Your task to perform on an android device: Search for "razer blade" on bestbuy, select the first entry, add it to the cart, then select checkout. Image 0: 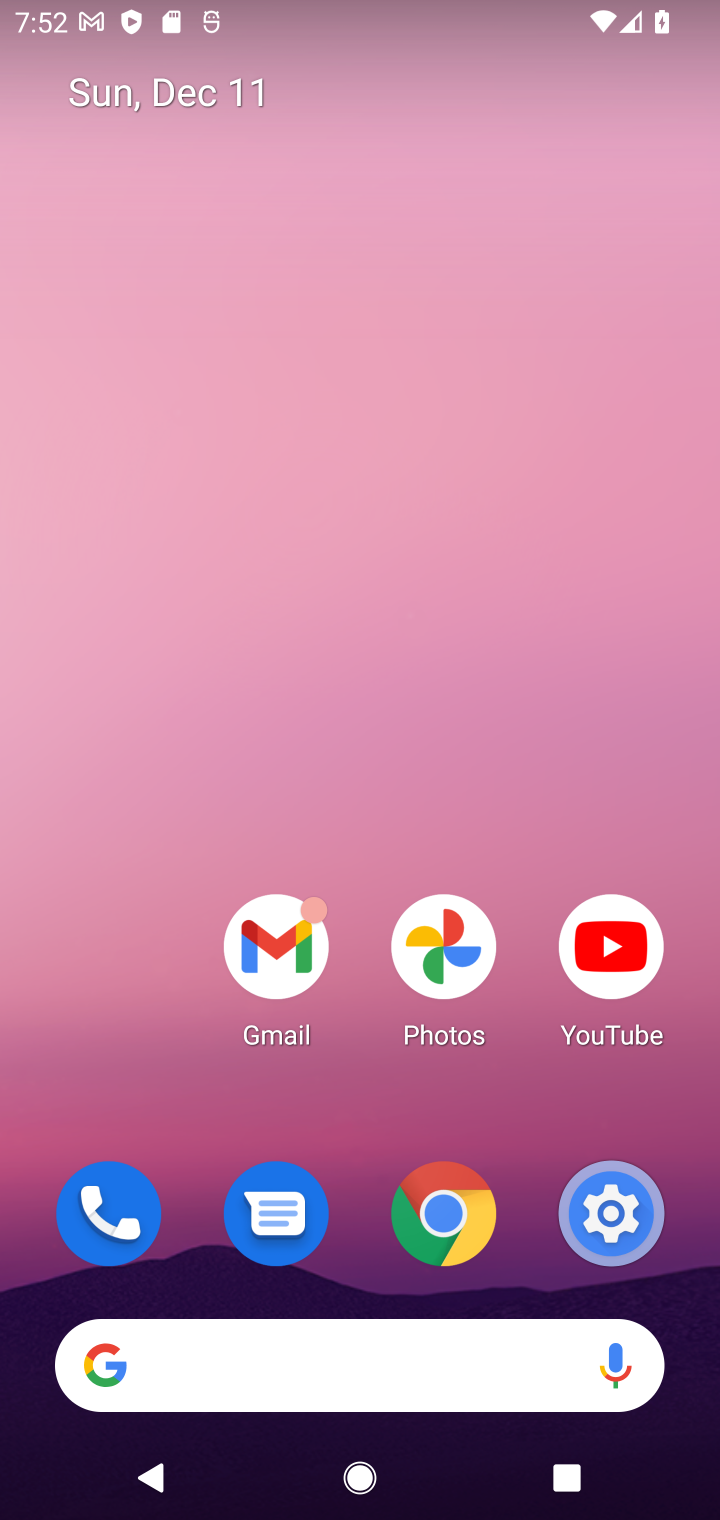
Step 0: click (358, 1359)
Your task to perform on an android device: Search for "razer blade" on bestbuy, select the first entry, add it to the cart, then select checkout. Image 1: 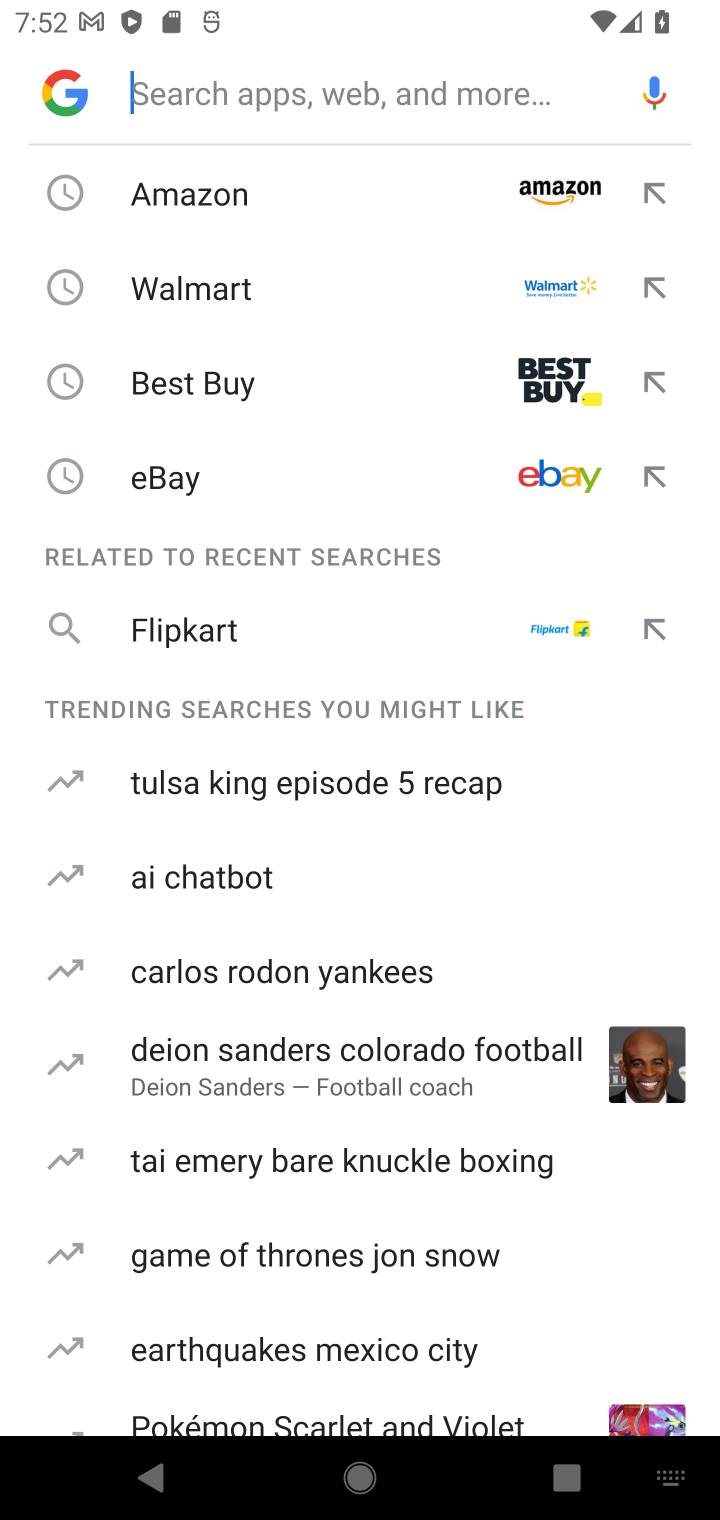
Step 1: click (306, 387)
Your task to perform on an android device: Search for "razer blade" on bestbuy, select the first entry, add it to the cart, then select checkout. Image 2: 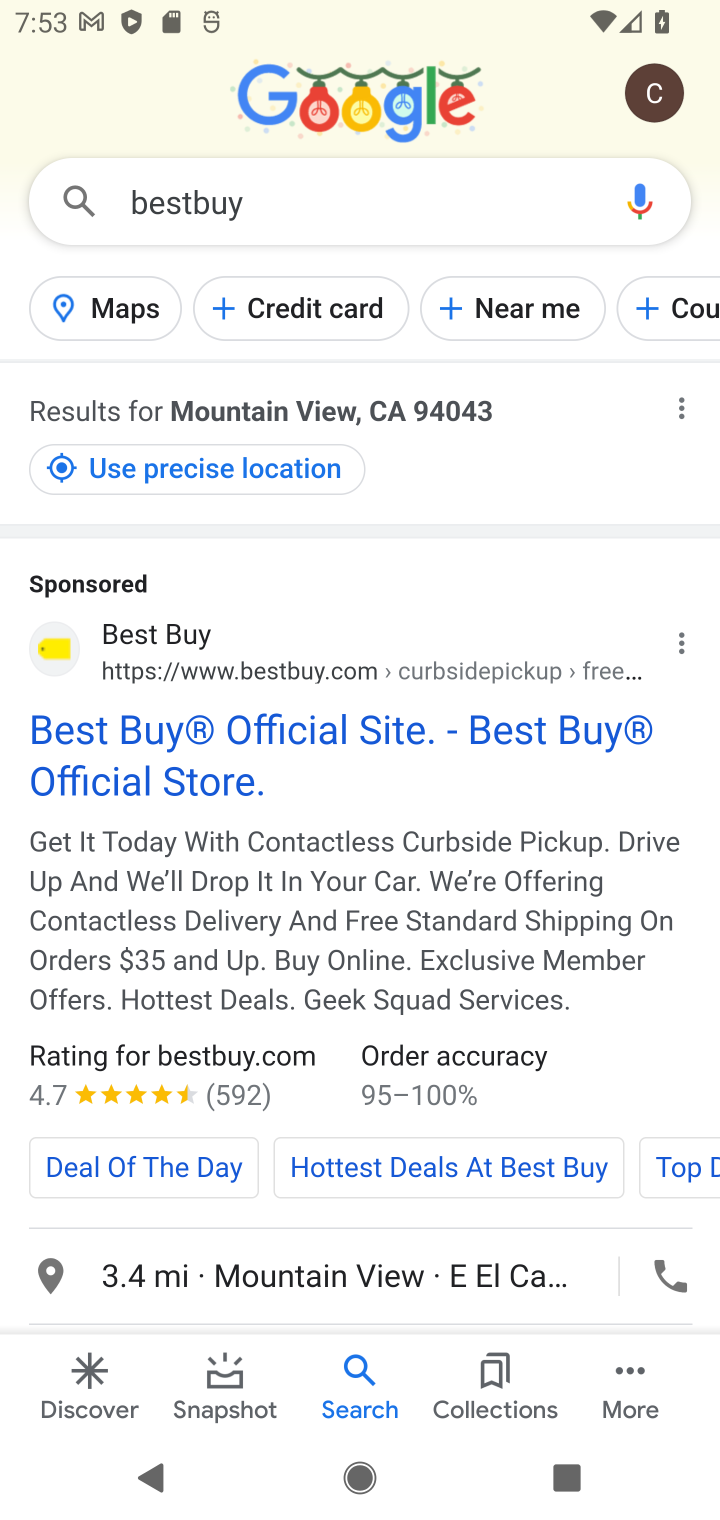
Step 2: click (201, 796)
Your task to perform on an android device: Search for "razer blade" on bestbuy, select the first entry, add it to the cart, then select checkout. Image 3: 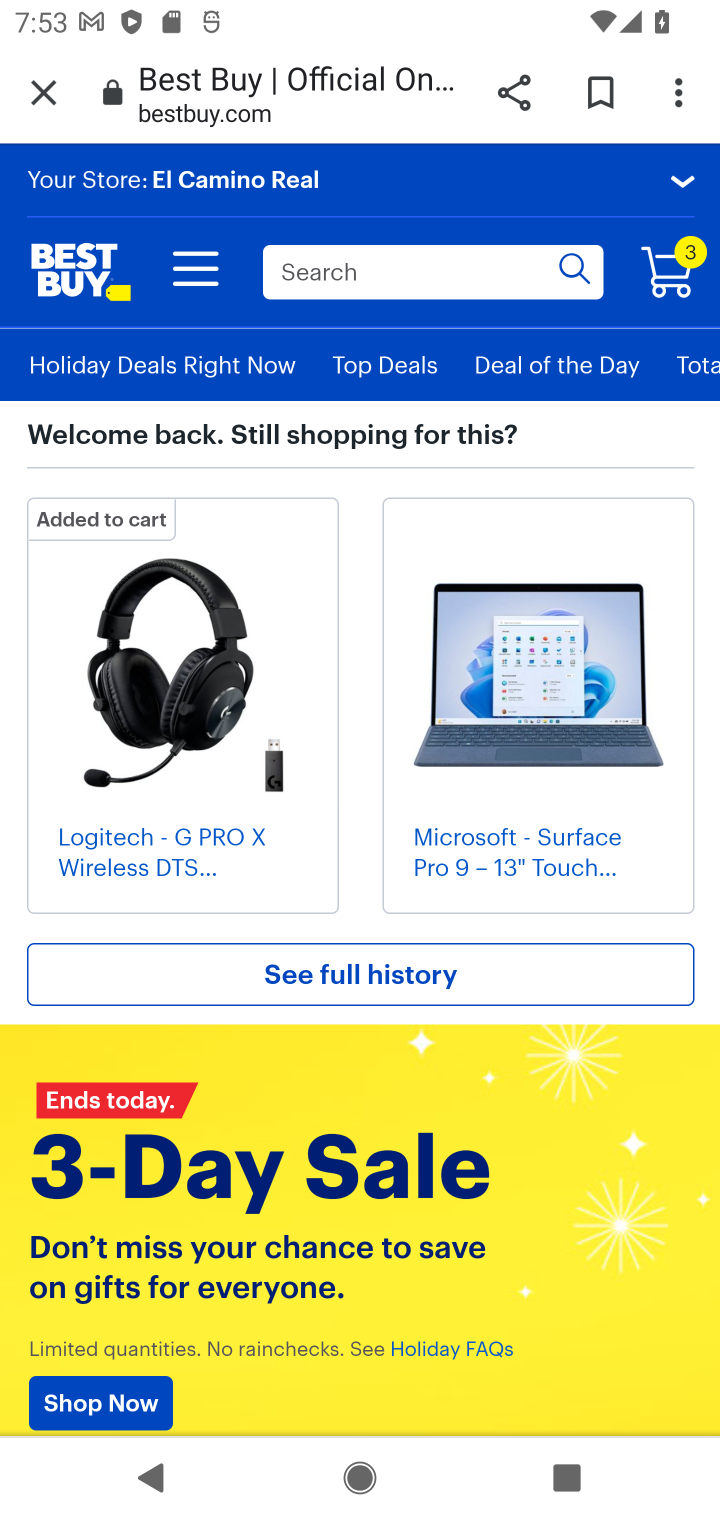
Step 3: click (344, 281)
Your task to perform on an android device: Search for "razer blade" on bestbuy, select the first entry, add it to the cart, then select checkout. Image 4: 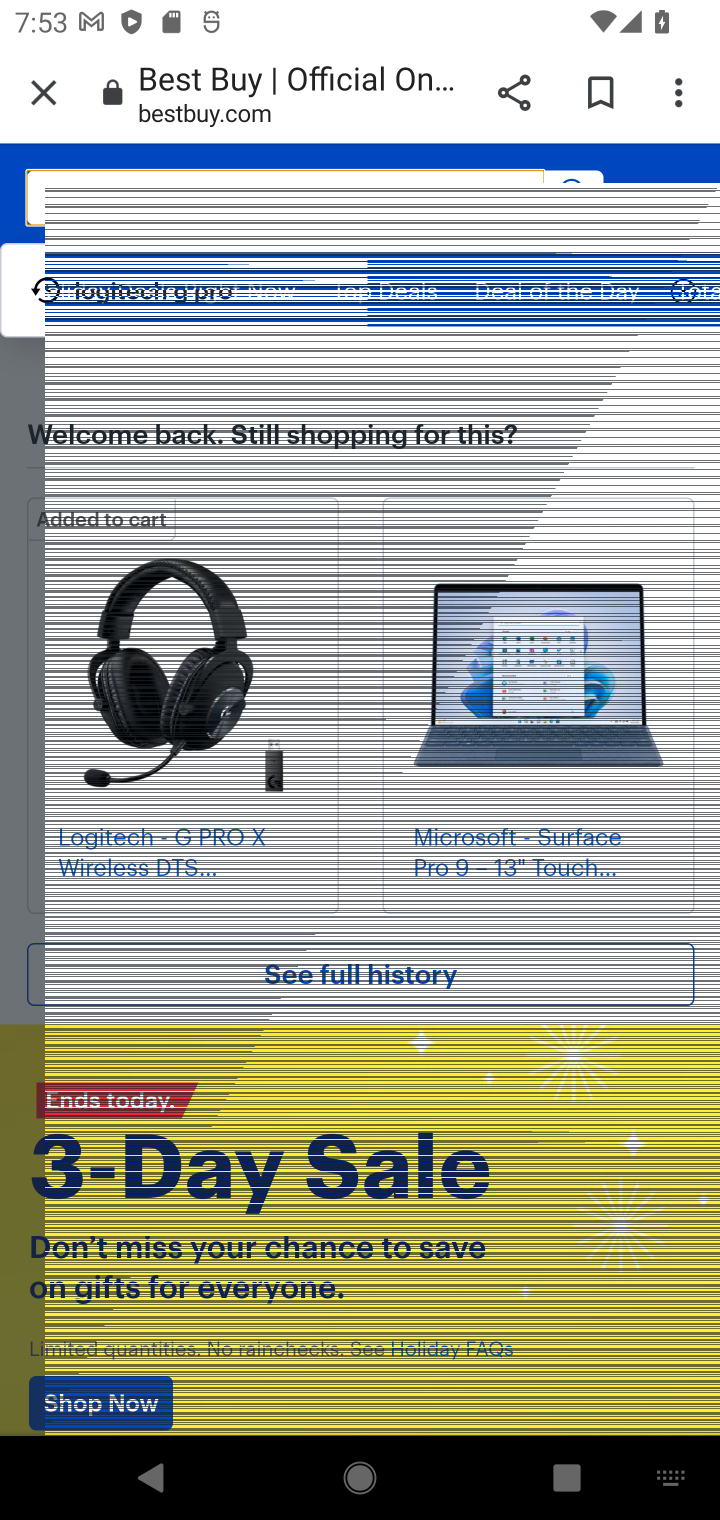
Step 4: type "razer blade"
Your task to perform on an android device: Search for "razer blade" on bestbuy, select the first entry, add it to the cart, then select checkout. Image 5: 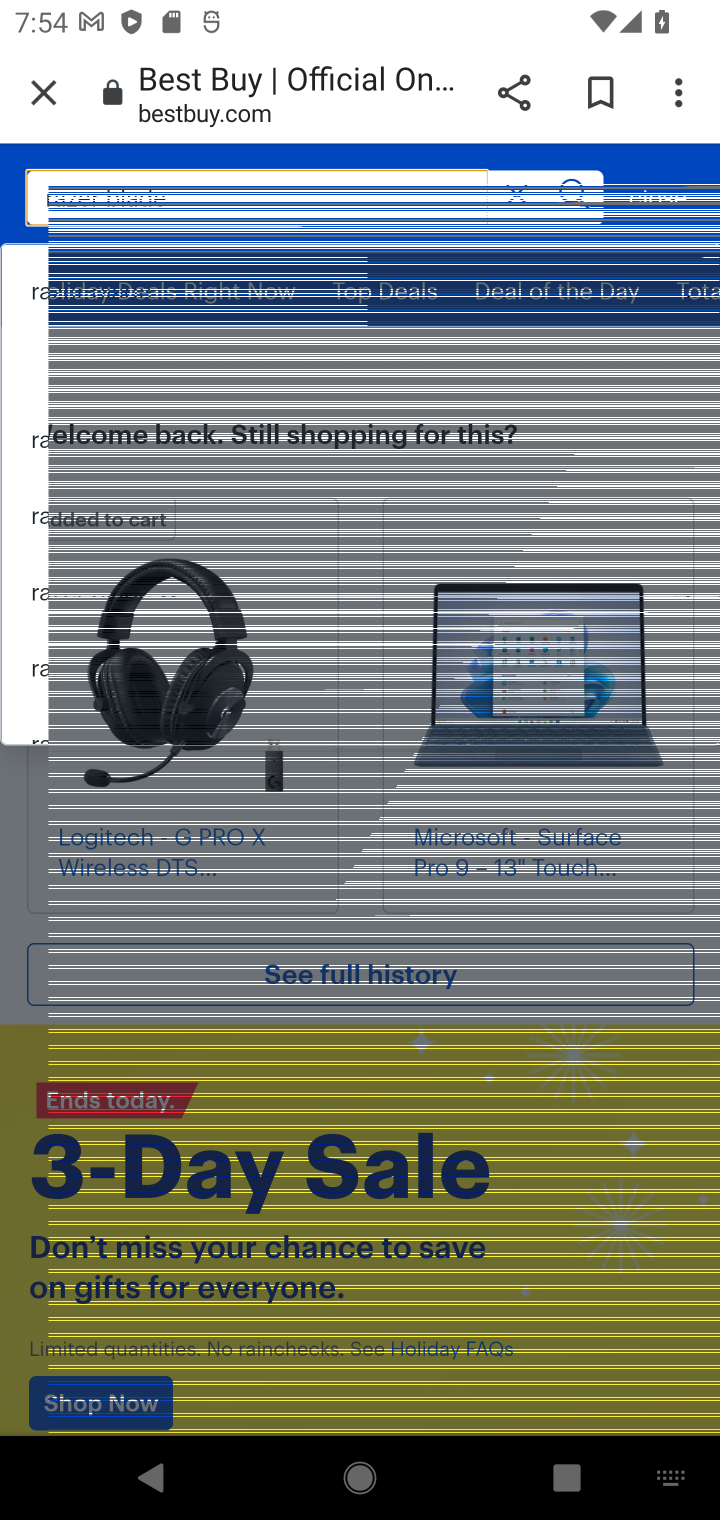
Step 5: click (192, 306)
Your task to perform on an android device: Search for "razer blade" on bestbuy, select the first entry, add it to the cart, then select checkout. Image 6: 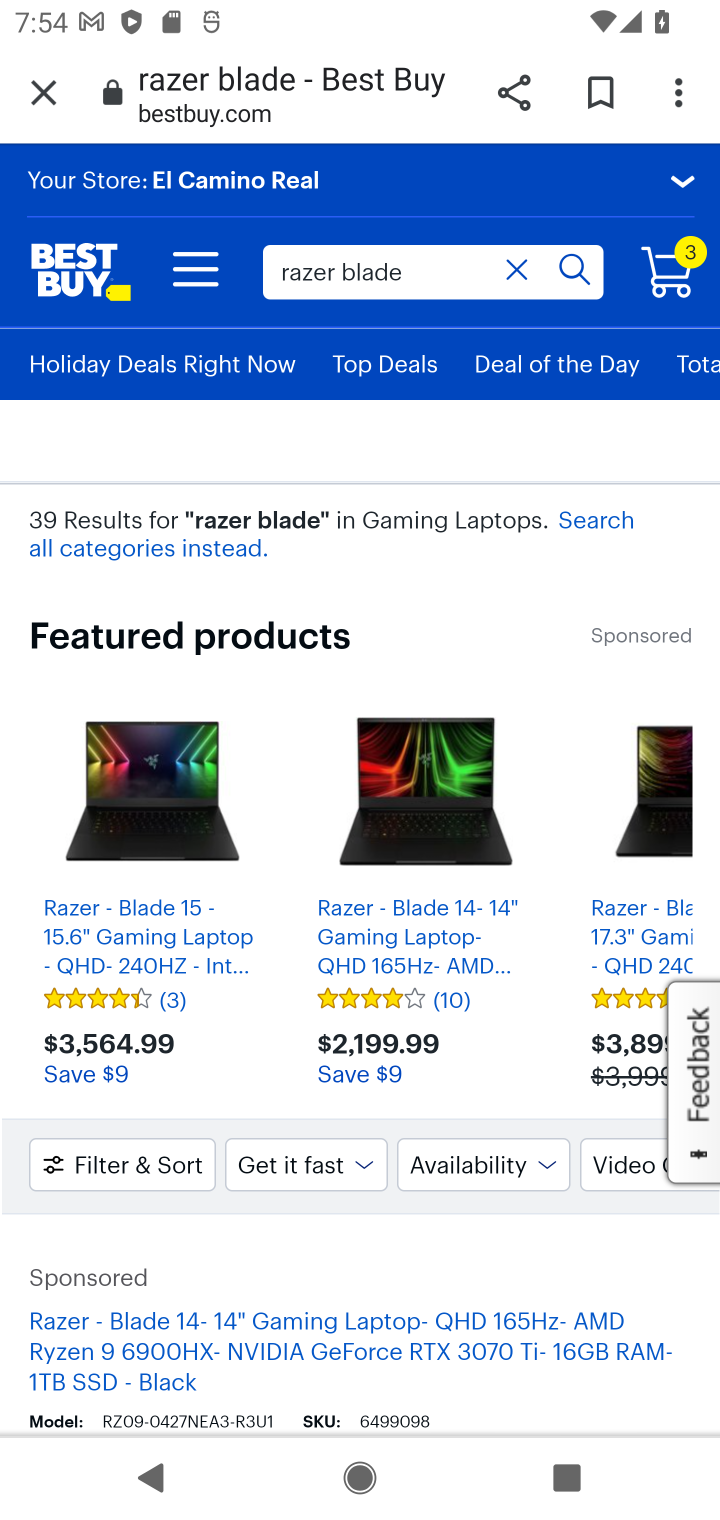
Step 6: click (105, 987)
Your task to perform on an android device: Search for "razer blade" on bestbuy, select the first entry, add it to the cart, then select checkout. Image 7: 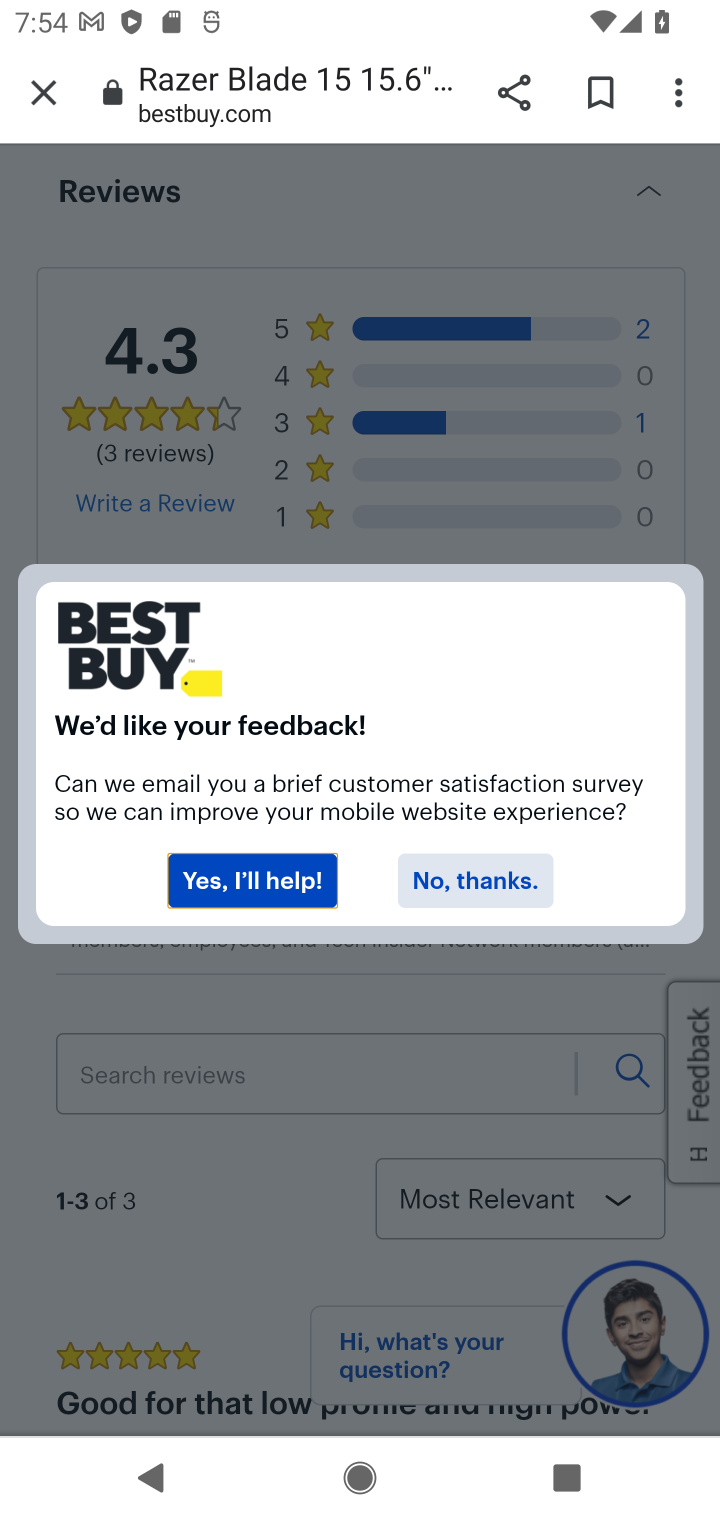
Step 7: click (288, 873)
Your task to perform on an android device: Search for "razer blade" on bestbuy, select the first entry, add it to the cart, then select checkout. Image 8: 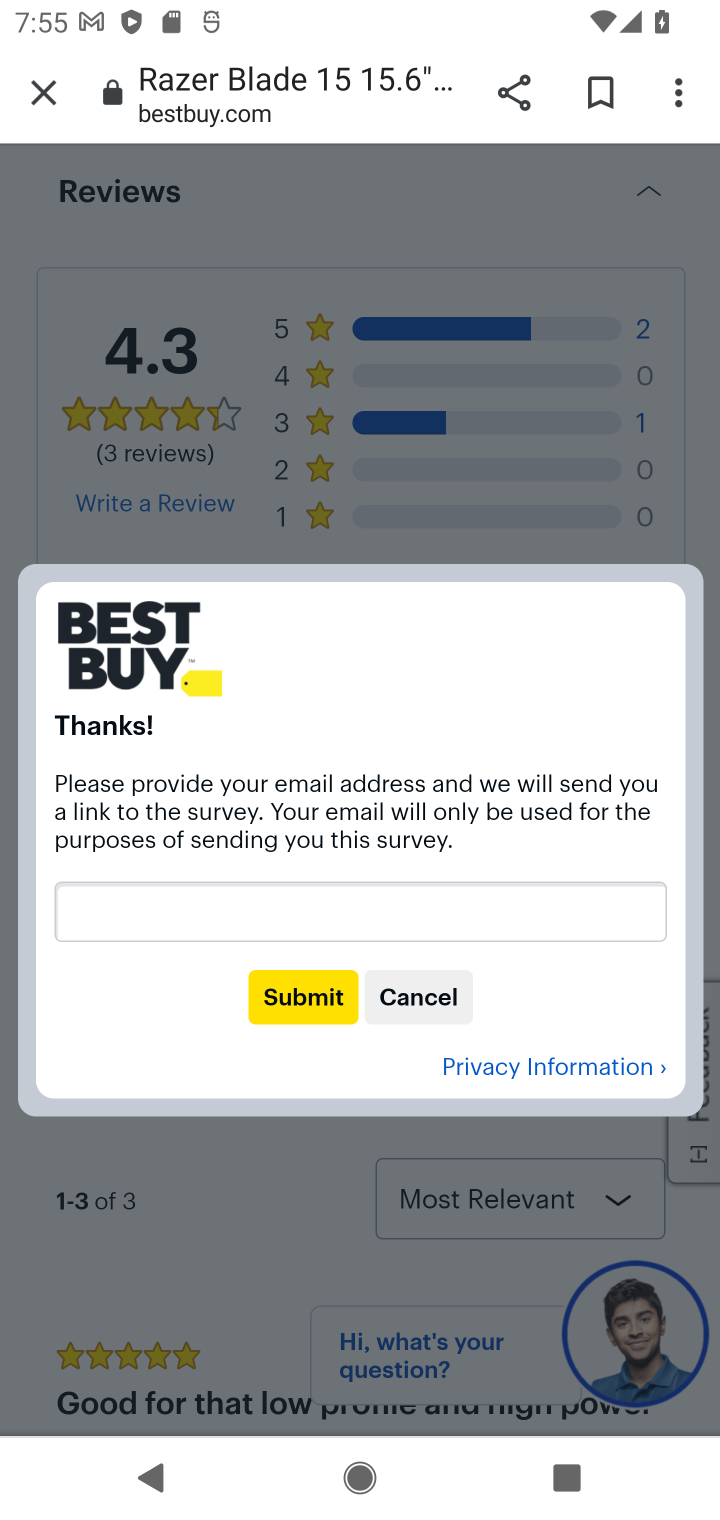
Step 8: task complete